Your task to perform on an android device: allow notifications from all sites in the chrome app Image 0: 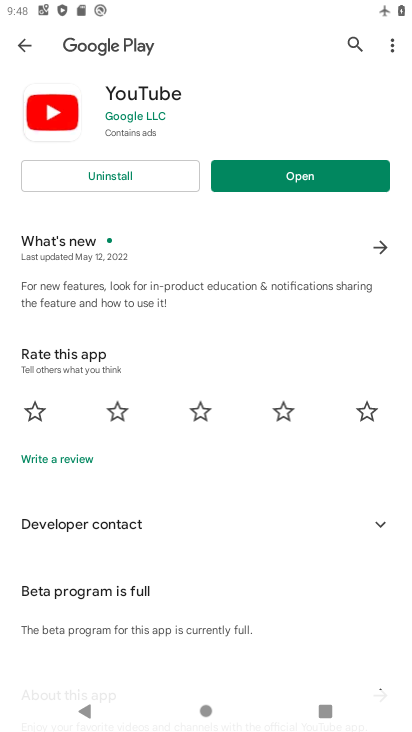
Step 0: press home button
Your task to perform on an android device: allow notifications from all sites in the chrome app Image 1: 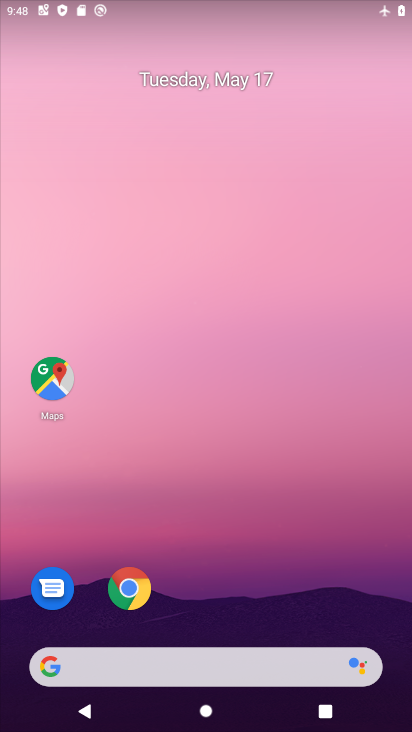
Step 1: drag from (211, 640) to (170, 35)
Your task to perform on an android device: allow notifications from all sites in the chrome app Image 2: 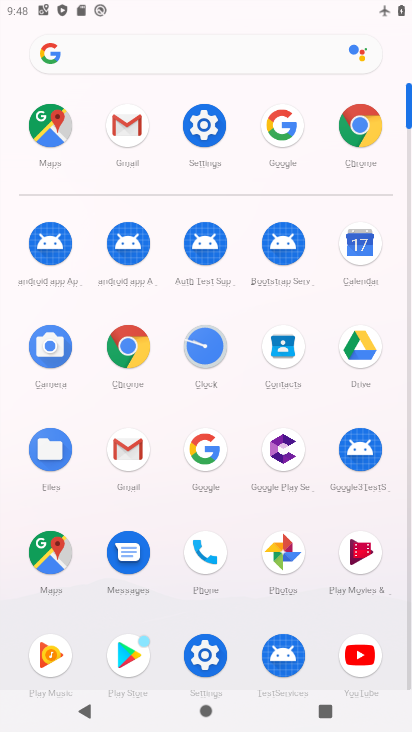
Step 2: click (125, 345)
Your task to perform on an android device: allow notifications from all sites in the chrome app Image 3: 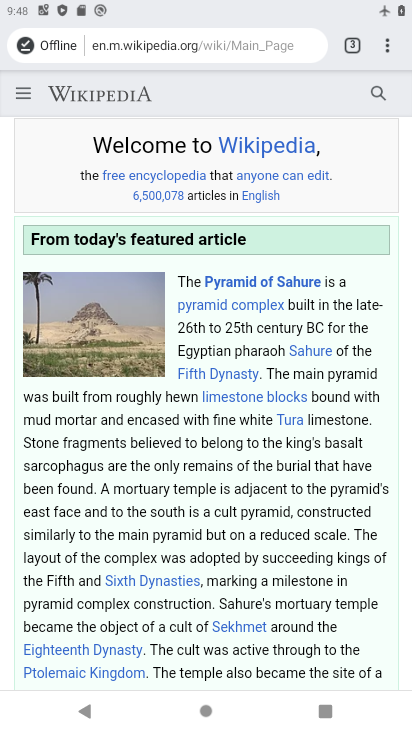
Step 3: click (386, 49)
Your task to perform on an android device: allow notifications from all sites in the chrome app Image 4: 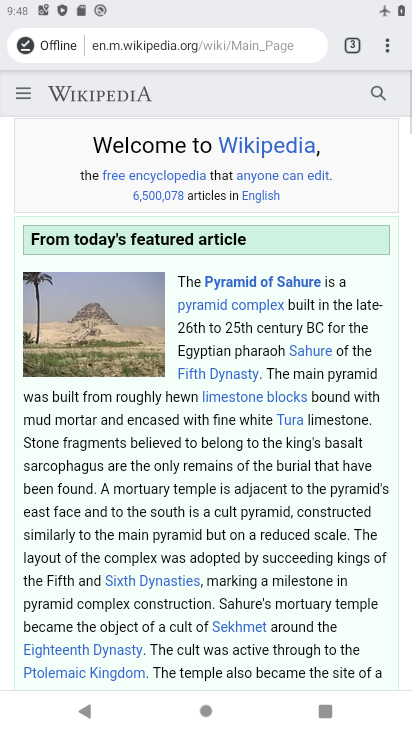
Step 4: drag from (386, 49) to (230, 500)
Your task to perform on an android device: allow notifications from all sites in the chrome app Image 5: 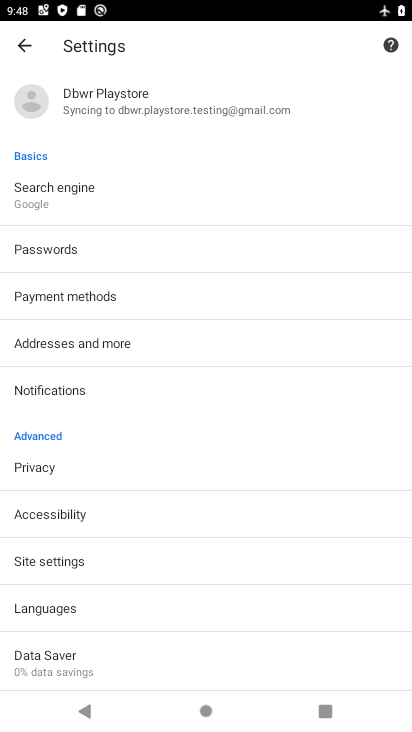
Step 5: drag from (18, 642) to (24, 532)
Your task to perform on an android device: allow notifications from all sites in the chrome app Image 6: 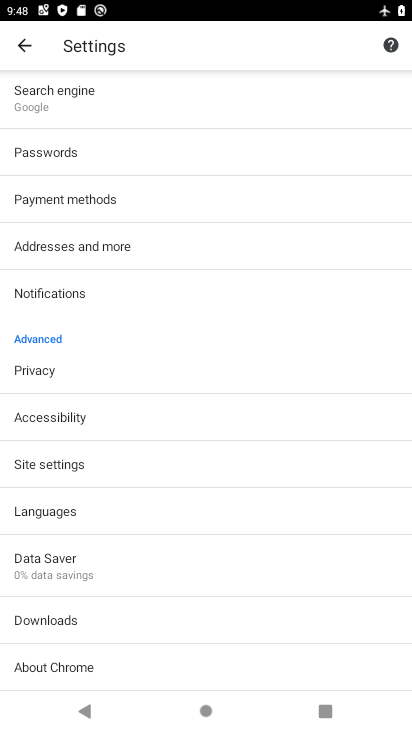
Step 6: click (74, 475)
Your task to perform on an android device: allow notifications from all sites in the chrome app Image 7: 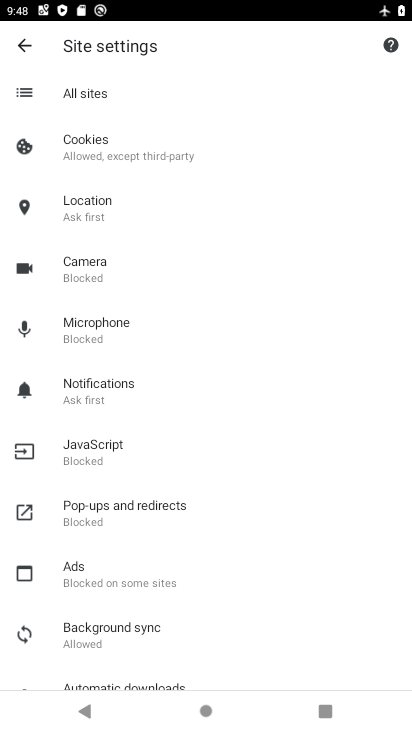
Step 7: click (110, 387)
Your task to perform on an android device: allow notifications from all sites in the chrome app Image 8: 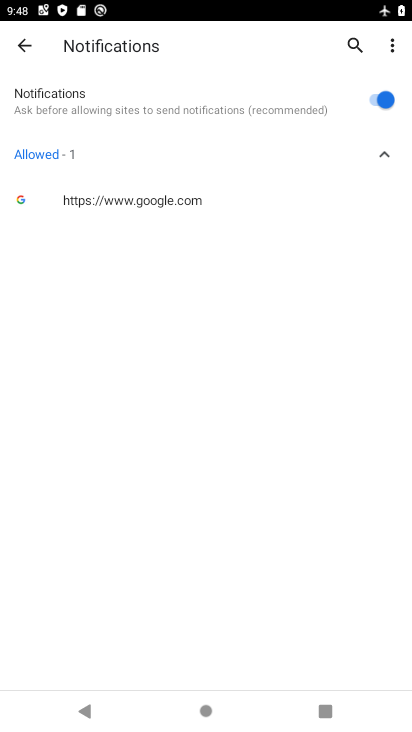
Step 8: task complete